Your task to perform on an android device: show emergency info Image 0: 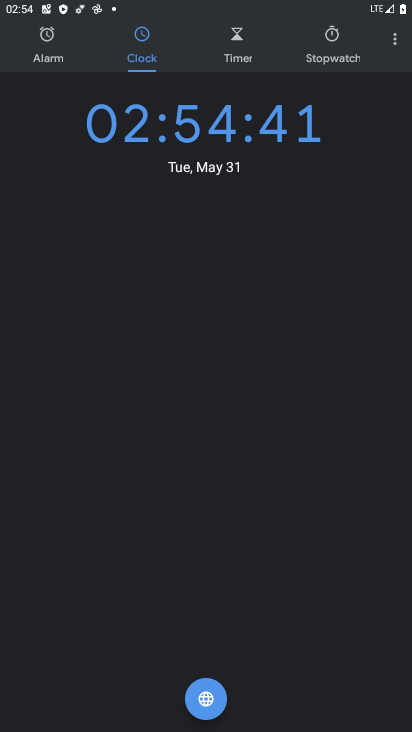
Step 0: press home button
Your task to perform on an android device: show emergency info Image 1: 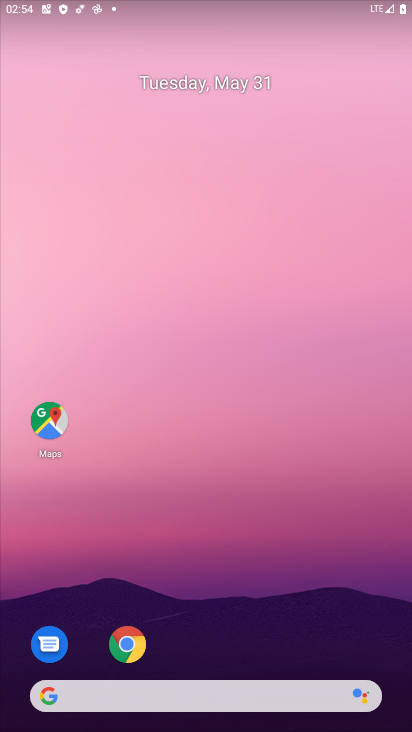
Step 1: drag from (306, 619) to (218, 250)
Your task to perform on an android device: show emergency info Image 2: 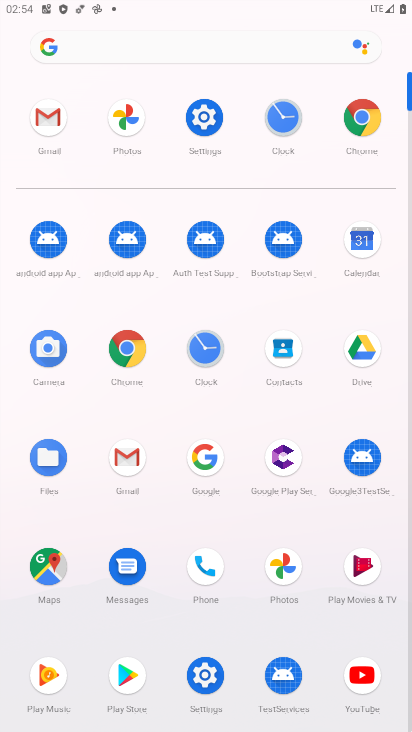
Step 2: click (209, 117)
Your task to perform on an android device: show emergency info Image 3: 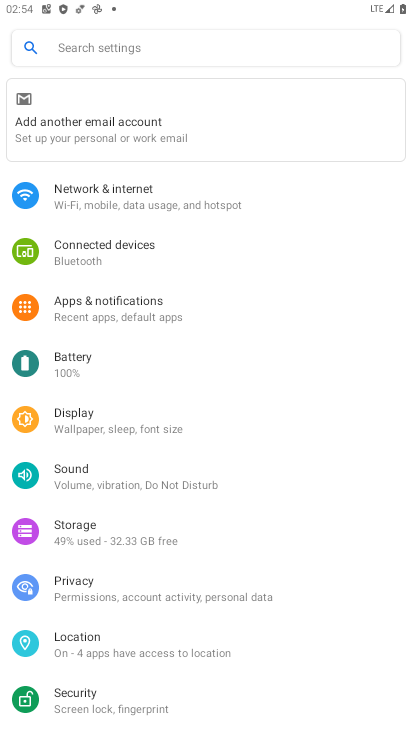
Step 3: drag from (234, 625) to (265, 181)
Your task to perform on an android device: show emergency info Image 4: 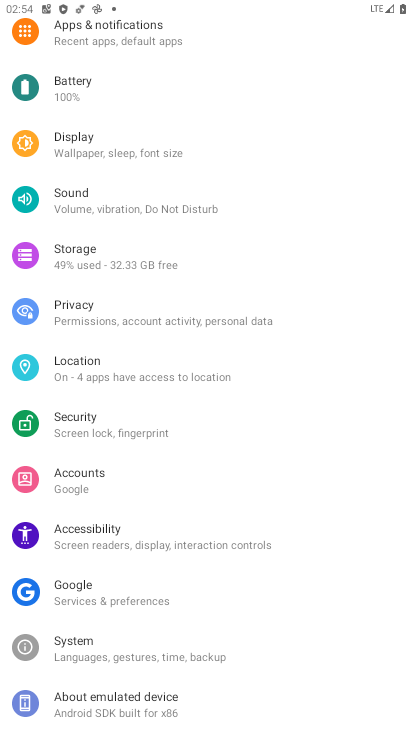
Step 4: click (141, 705)
Your task to perform on an android device: show emergency info Image 5: 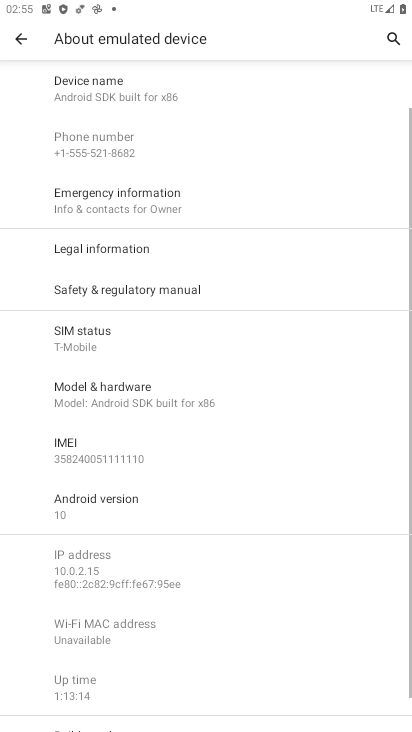
Step 5: click (83, 200)
Your task to perform on an android device: show emergency info Image 6: 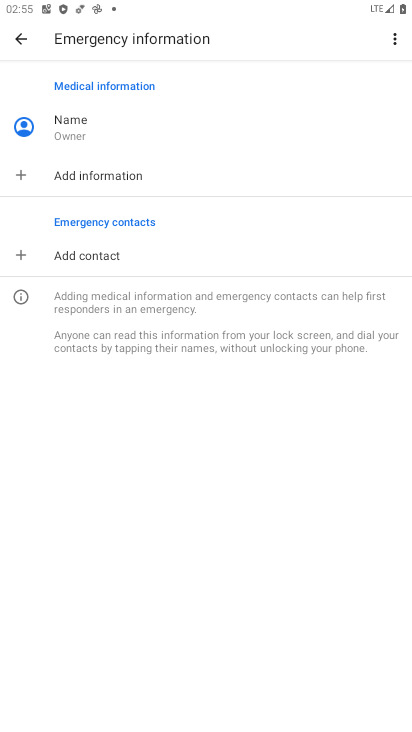
Step 6: task complete